Your task to perform on an android device: Search for flights from NYC to San Diego Image 0: 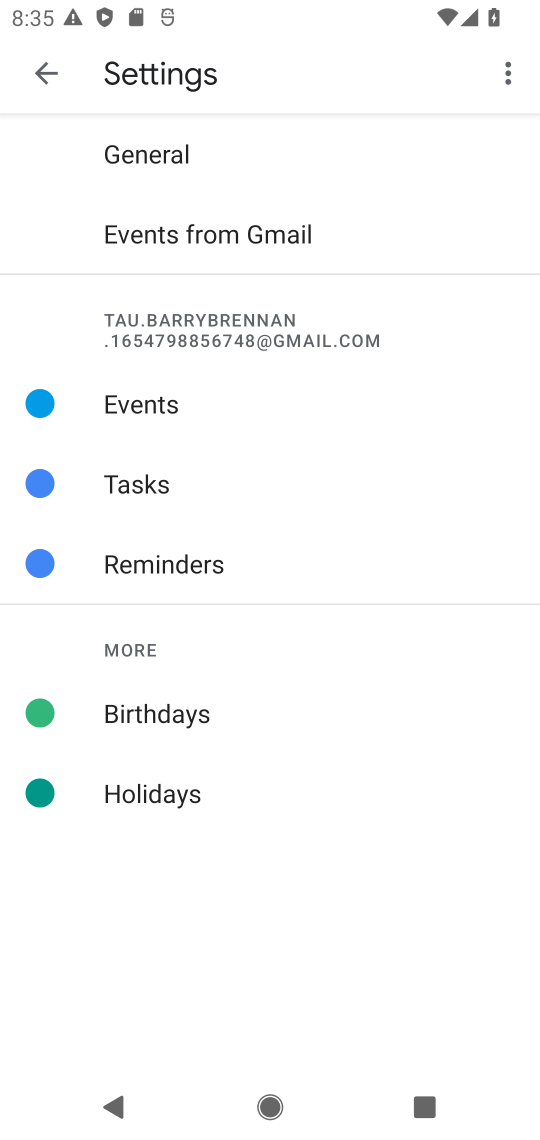
Step 0: press home button
Your task to perform on an android device: Search for flights from NYC to San Diego Image 1: 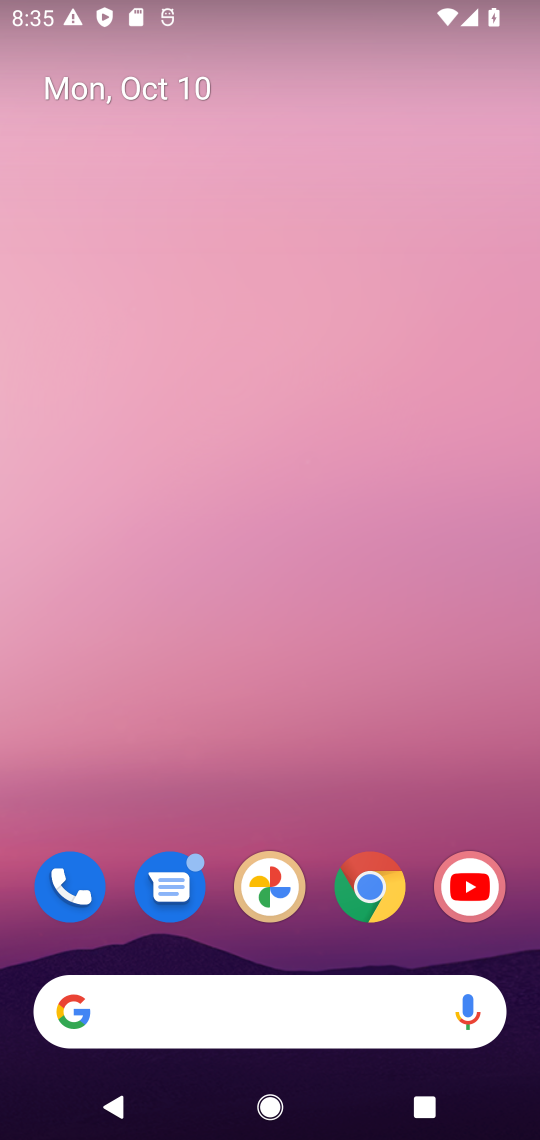
Step 1: click (370, 891)
Your task to perform on an android device: Search for flights from NYC to San Diego Image 2: 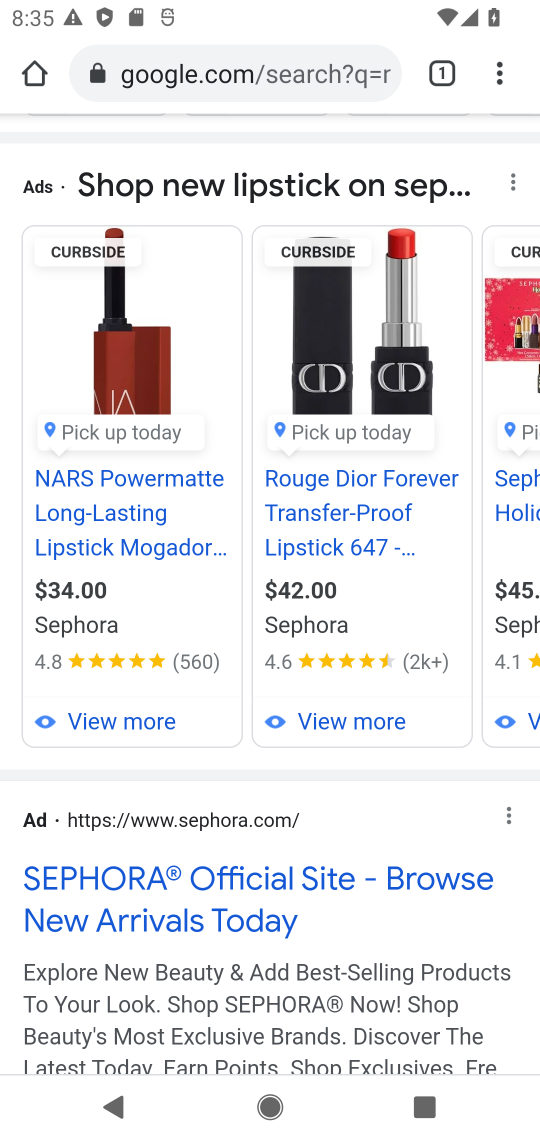
Step 2: click (279, 67)
Your task to perform on an android device: Search for flights from NYC to San Diego Image 3: 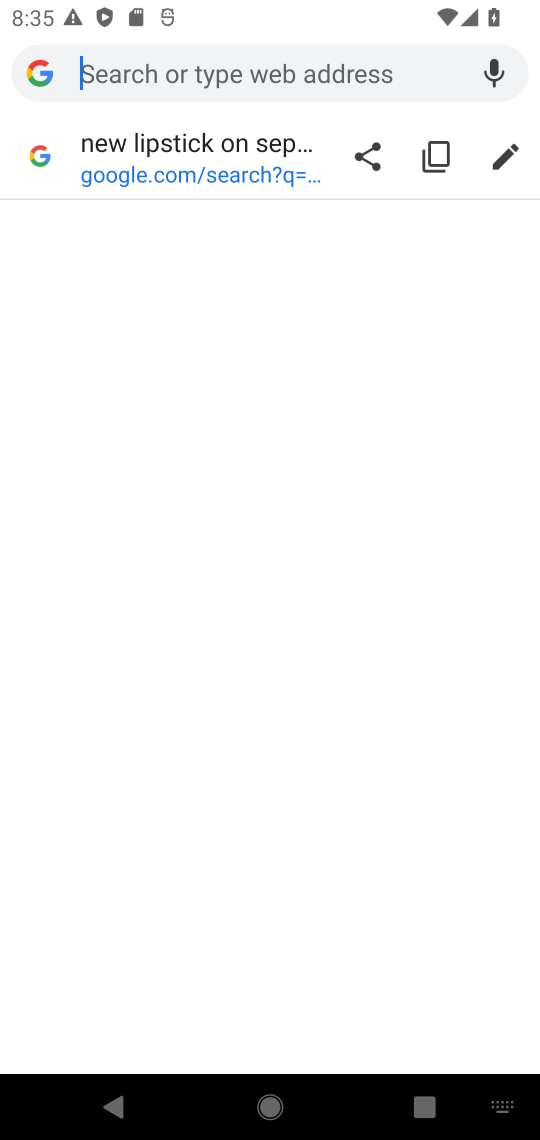
Step 3: type "nyc to san diego flights"
Your task to perform on an android device: Search for flights from NYC to San Diego Image 4: 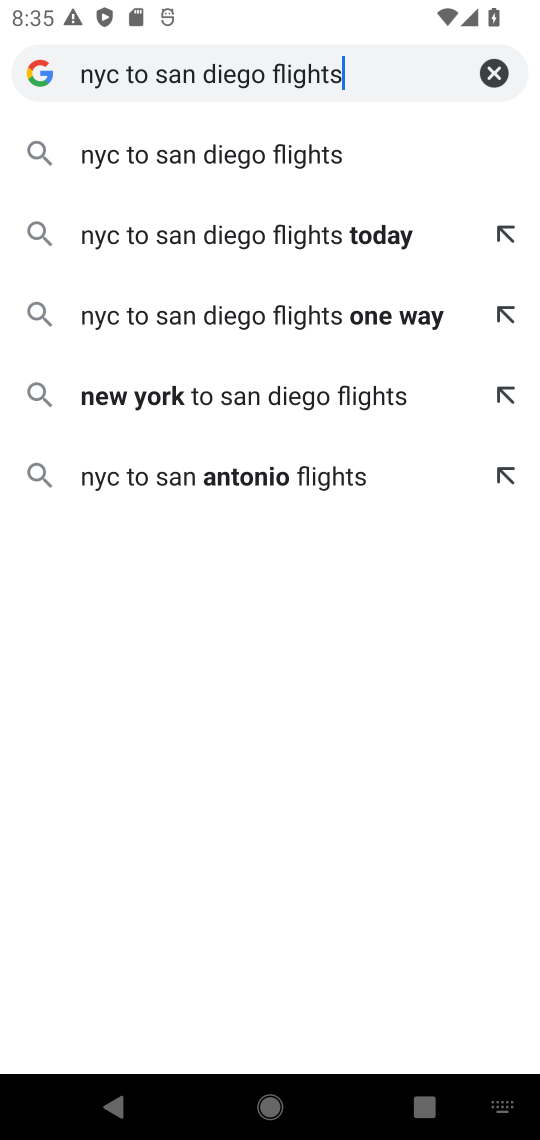
Step 4: click (349, 171)
Your task to perform on an android device: Search for flights from NYC to San Diego Image 5: 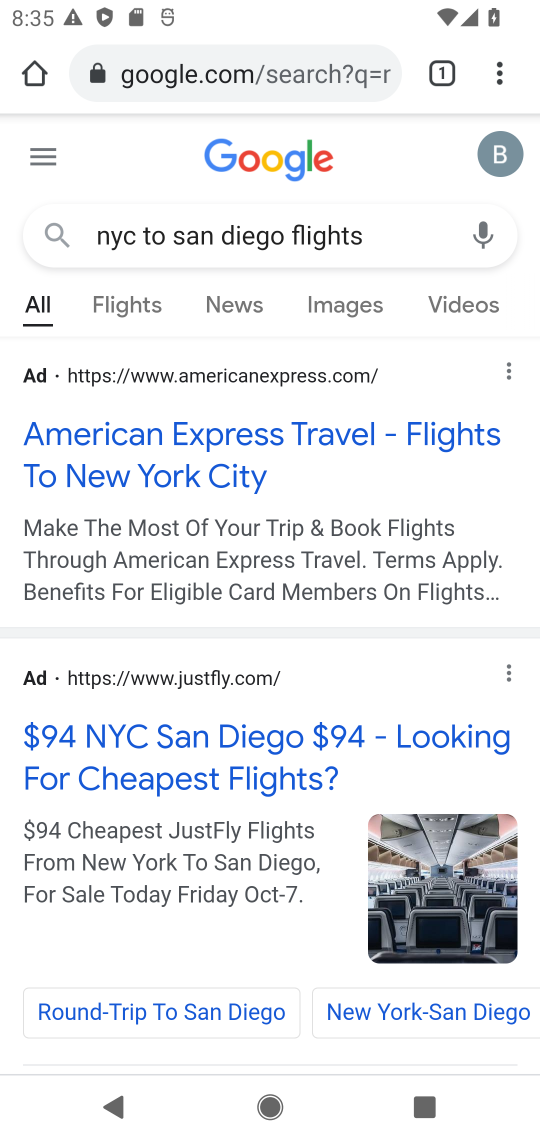
Step 5: click (132, 301)
Your task to perform on an android device: Search for flights from NYC to San Diego Image 6: 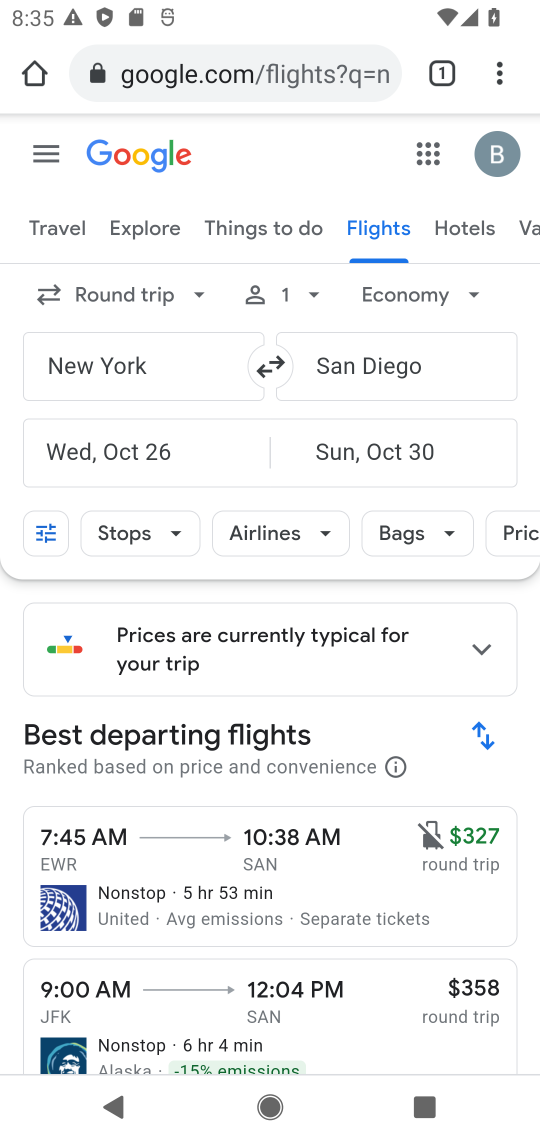
Step 6: task complete